Your task to perform on an android device: turn notification dots off Image 0: 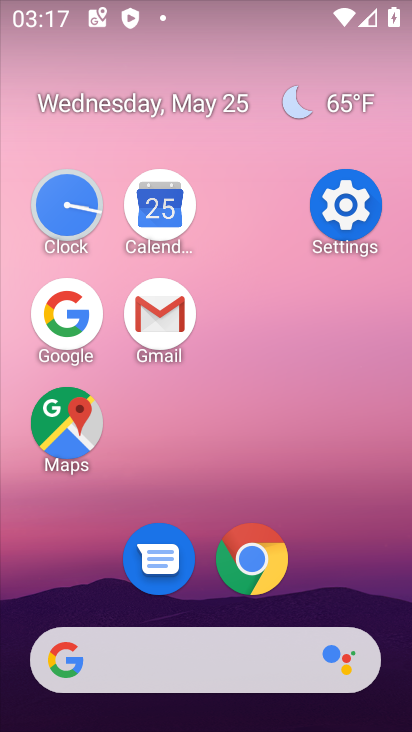
Step 0: click (356, 239)
Your task to perform on an android device: turn notification dots off Image 1: 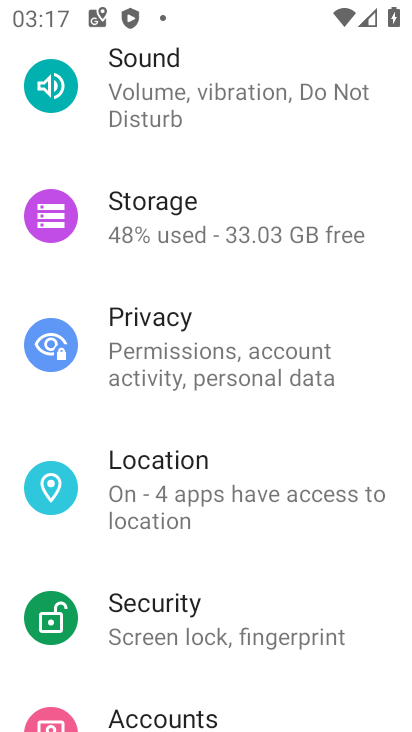
Step 1: drag from (194, 165) to (243, 658)
Your task to perform on an android device: turn notification dots off Image 2: 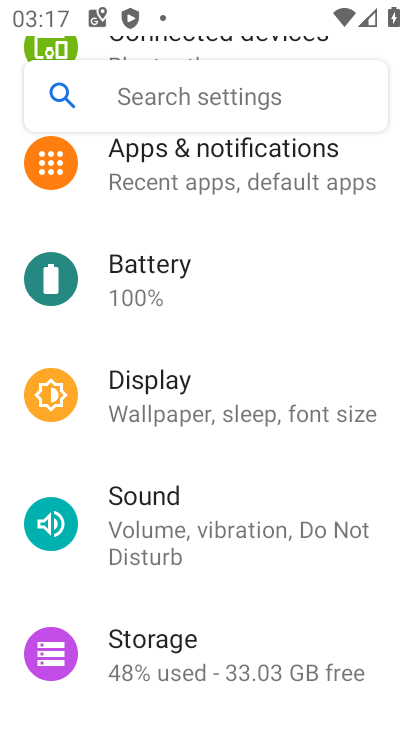
Step 2: click (293, 198)
Your task to perform on an android device: turn notification dots off Image 3: 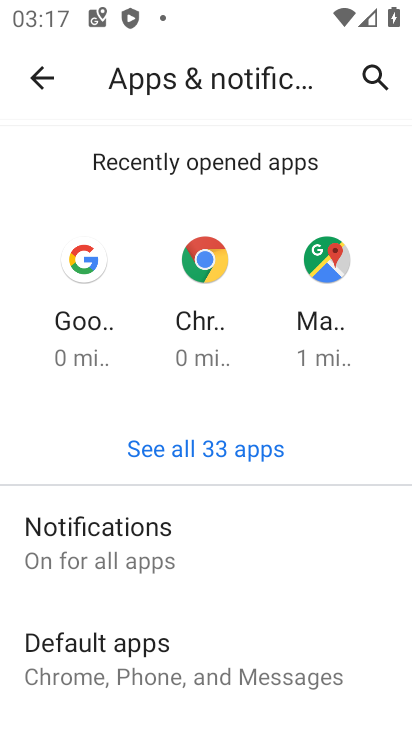
Step 3: drag from (207, 643) to (138, 209)
Your task to perform on an android device: turn notification dots off Image 4: 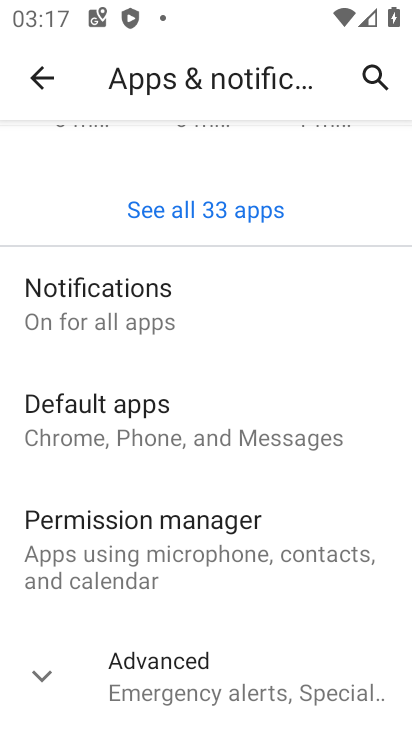
Step 4: click (168, 305)
Your task to perform on an android device: turn notification dots off Image 5: 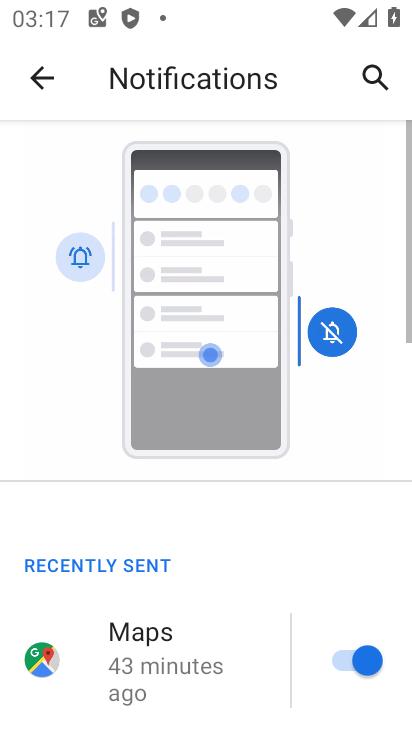
Step 5: drag from (229, 604) to (183, 108)
Your task to perform on an android device: turn notification dots off Image 6: 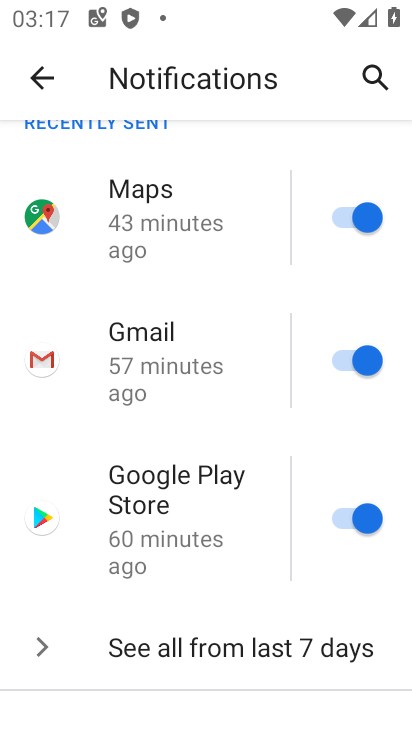
Step 6: drag from (275, 582) to (225, 110)
Your task to perform on an android device: turn notification dots off Image 7: 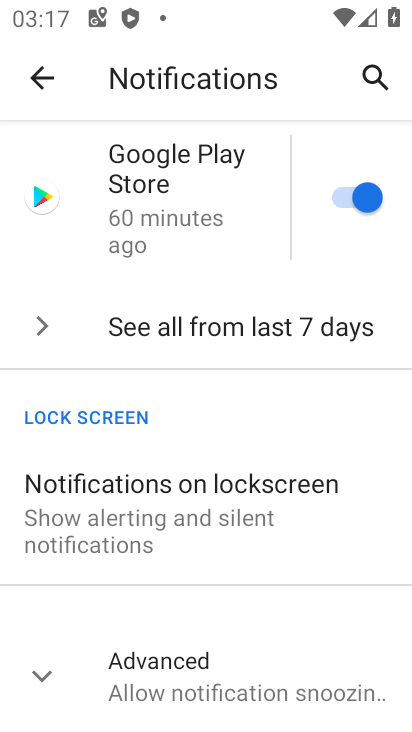
Step 7: click (213, 647)
Your task to perform on an android device: turn notification dots off Image 8: 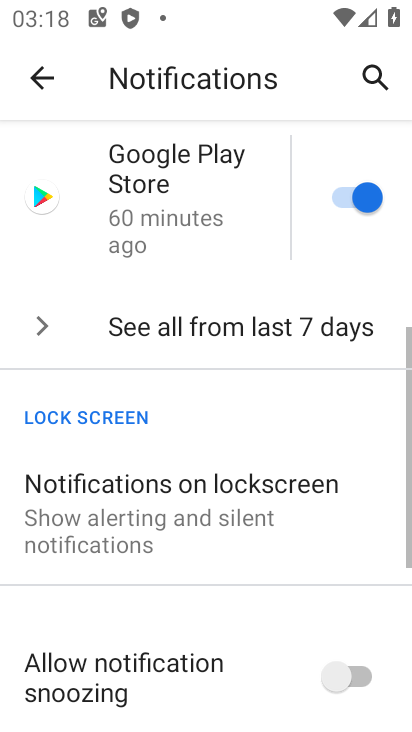
Step 8: drag from (205, 638) to (188, 184)
Your task to perform on an android device: turn notification dots off Image 9: 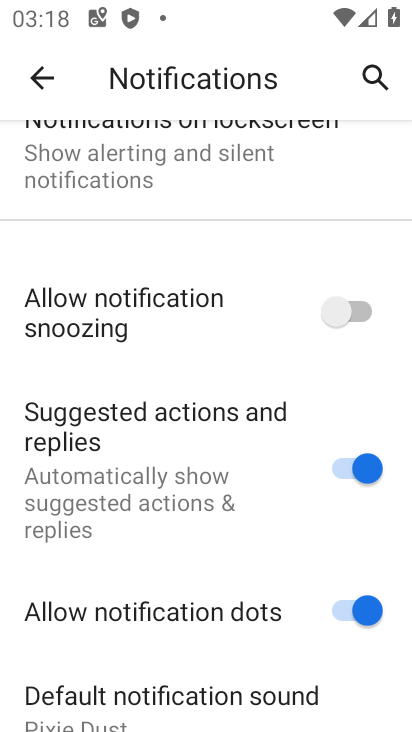
Step 9: click (346, 617)
Your task to perform on an android device: turn notification dots off Image 10: 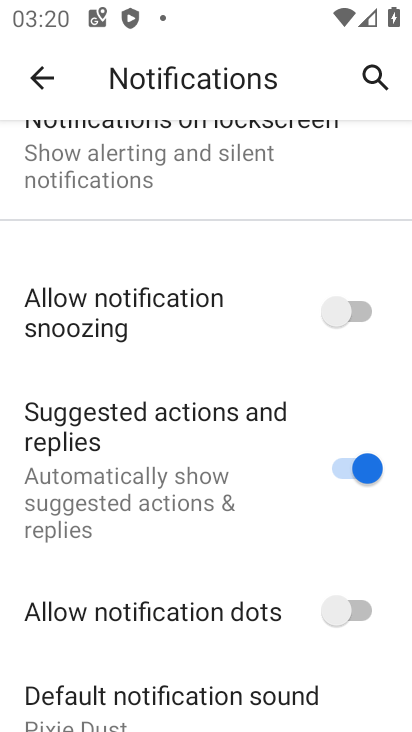
Step 10: task complete